Your task to perform on an android device: empty trash in google photos Image 0: 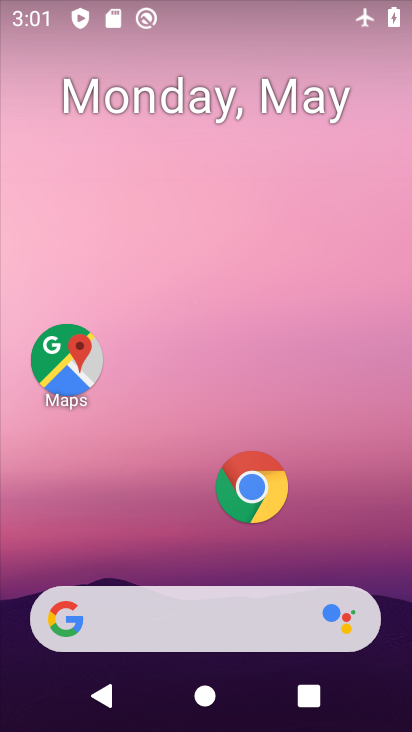
Step 0: drag from (142, 490) to (174, 5)
Your task to perform on an android device: empty trash in google photos Image 1: 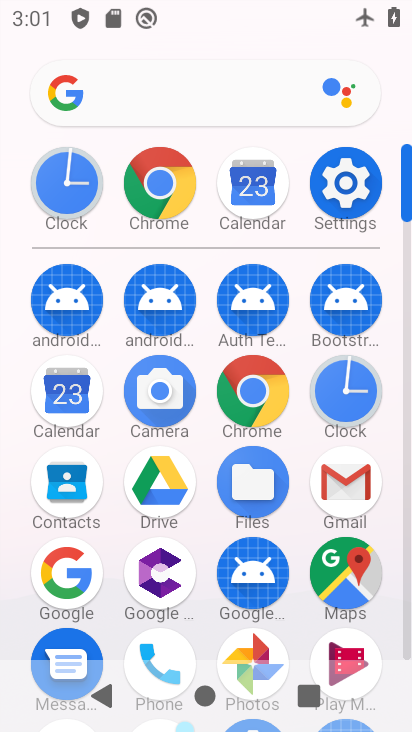
Step 1: click (241, 640)
Your task to perform on an android device: empty trash in google photos Image 2: 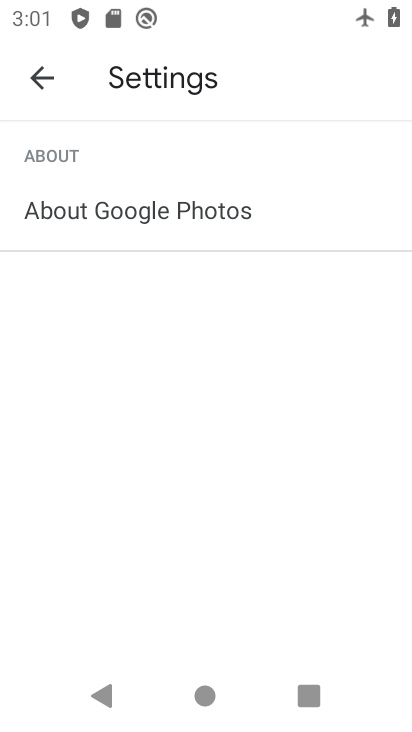
Step 2: click (46, 93)
Your task to perform on an android device: empty trash in google photos Image 3: 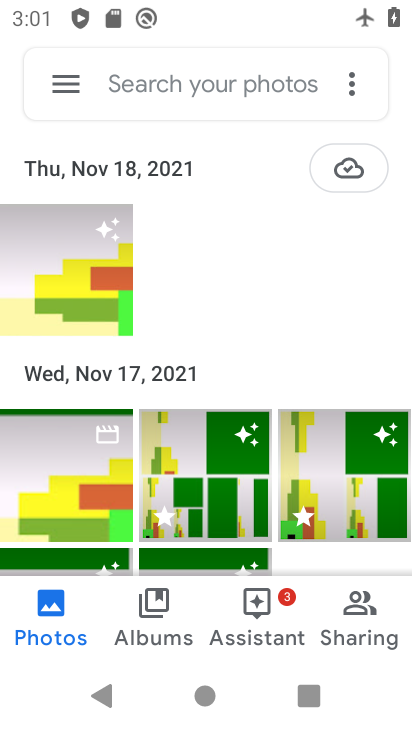
Step 3: click (76, 71)
Your task to perform on an android device: empty trash in google photos Image 4: 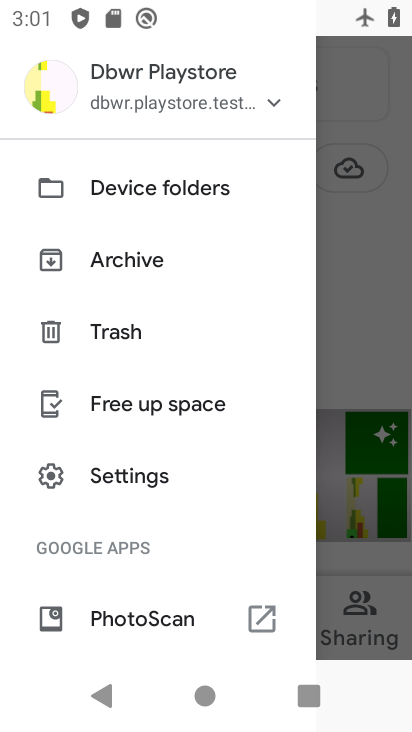
Step 4: click (122, 331)
Your task to perform on an android device: empty trash in google photos Image 5: 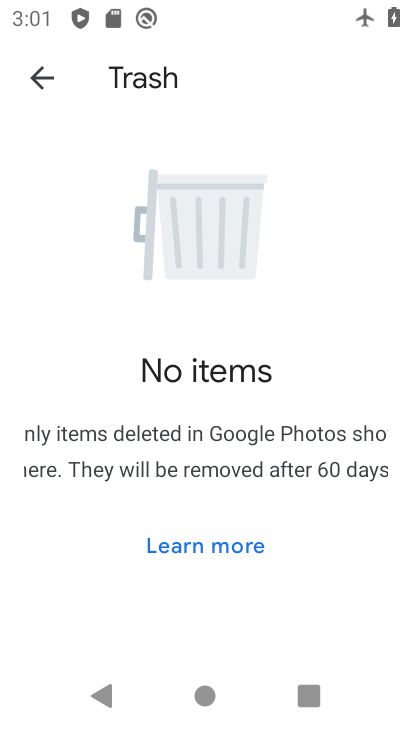
Step 5: task complete